Your task to perform on an android device: open a bookmark in the chrome app Image 0: 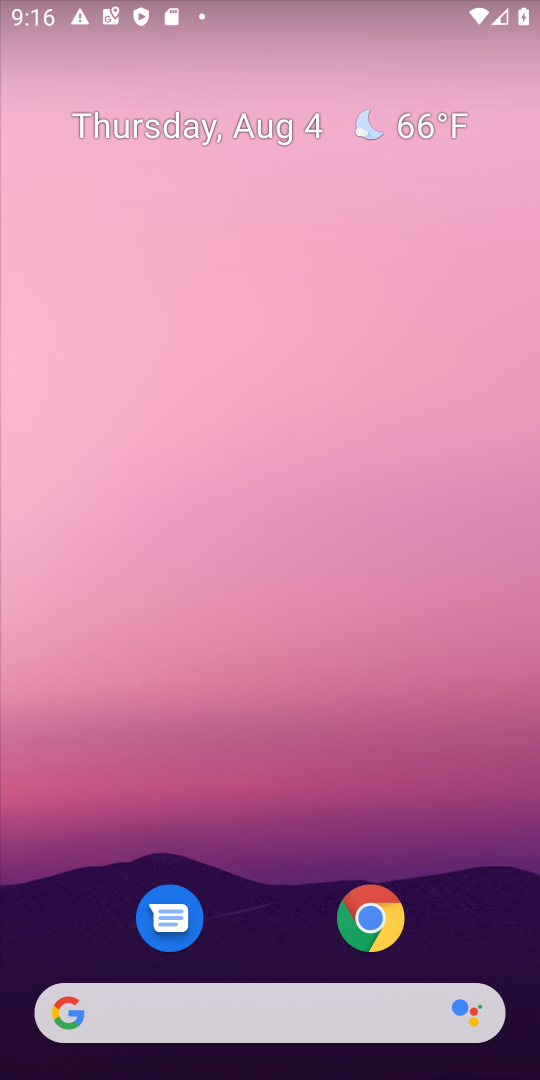
Step 0: press home button
Your task to perform on an android device: open a bookmark in the chrome app Image 1: 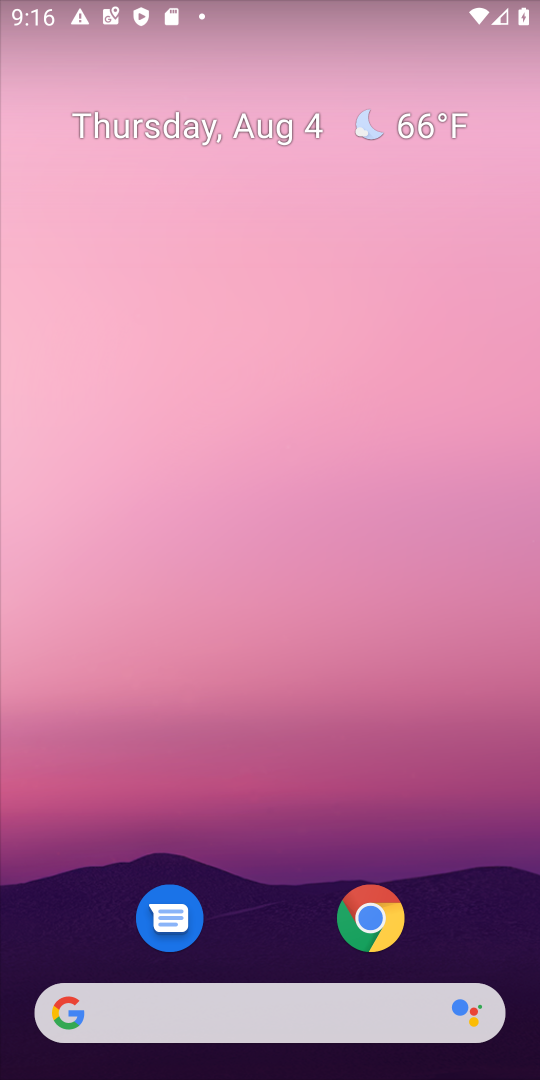
Step 1: drag from (286, 957) to (281, 97)
Your task to perform on an android device: open a bookmark in the chrome app Image 2: 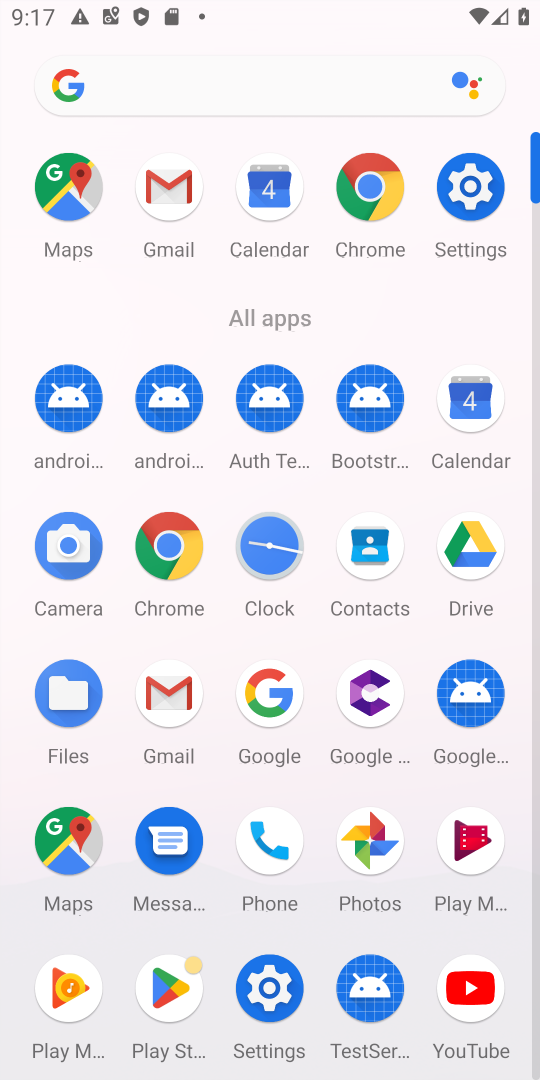
Step 2: click (362, 181)
Your task to perform on an android device: open a bookmark in the chrome app Image 3: 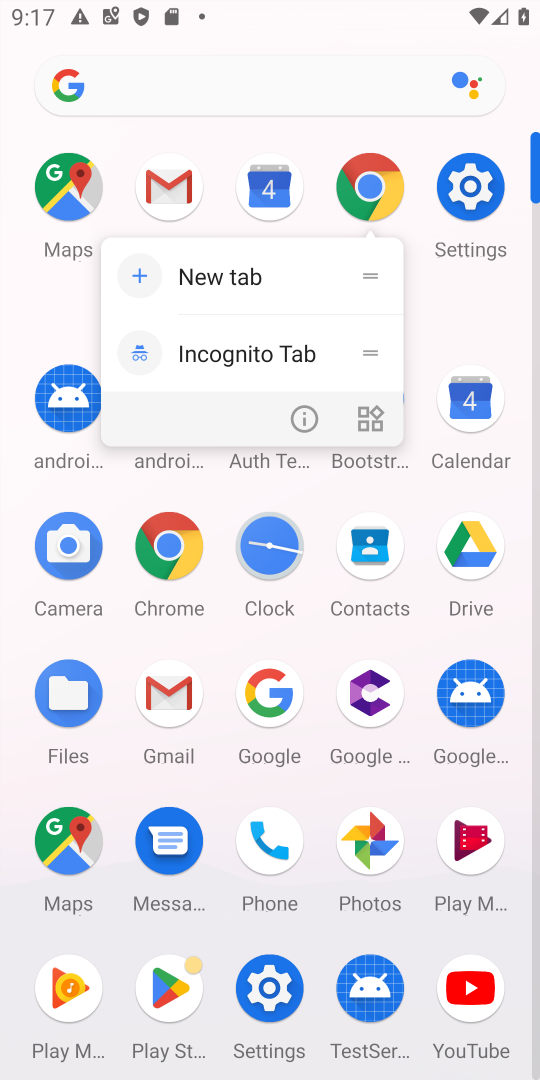
Step 3: click (367, 181)
Your task to perform on an android device: open a bookmark in the chrome app Image 4: 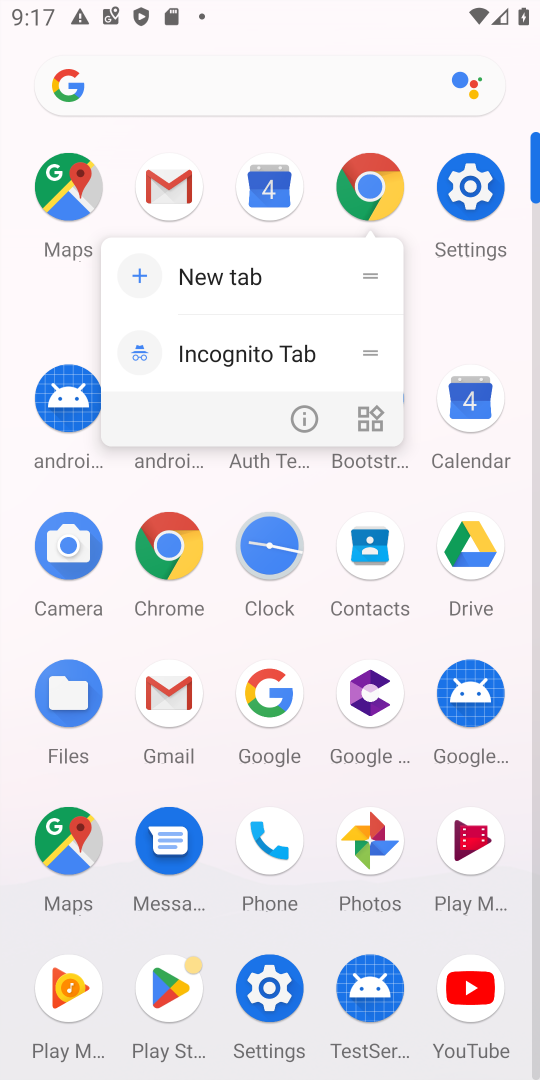
Step 4: click (367, 181)
Your task to perform on an android device: open a bookmark in the chrome app Image 5: 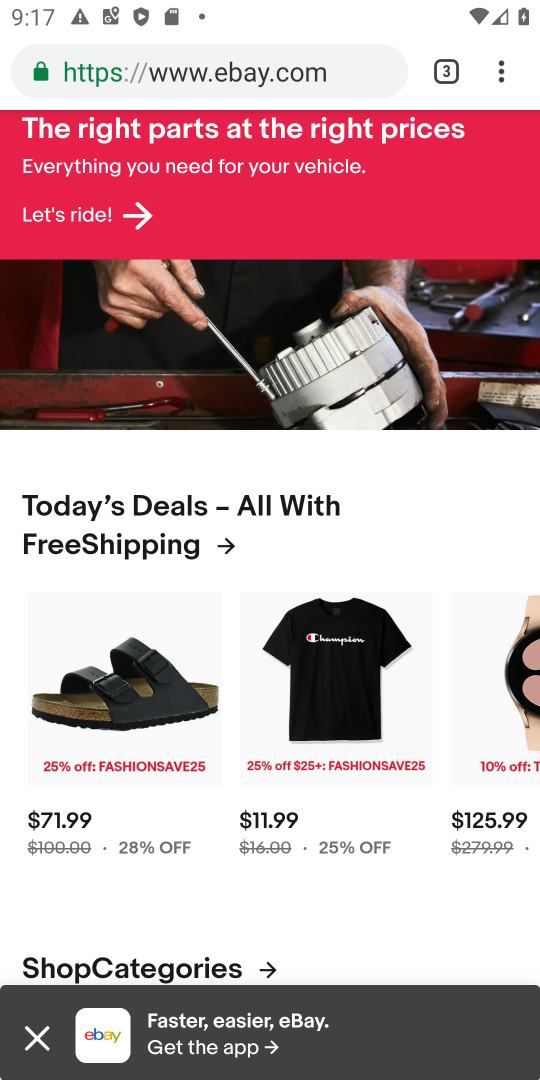
Step 5: click (508, 64)
Your task to perform on an android device: open a bookmark in the chrome app Image 6: 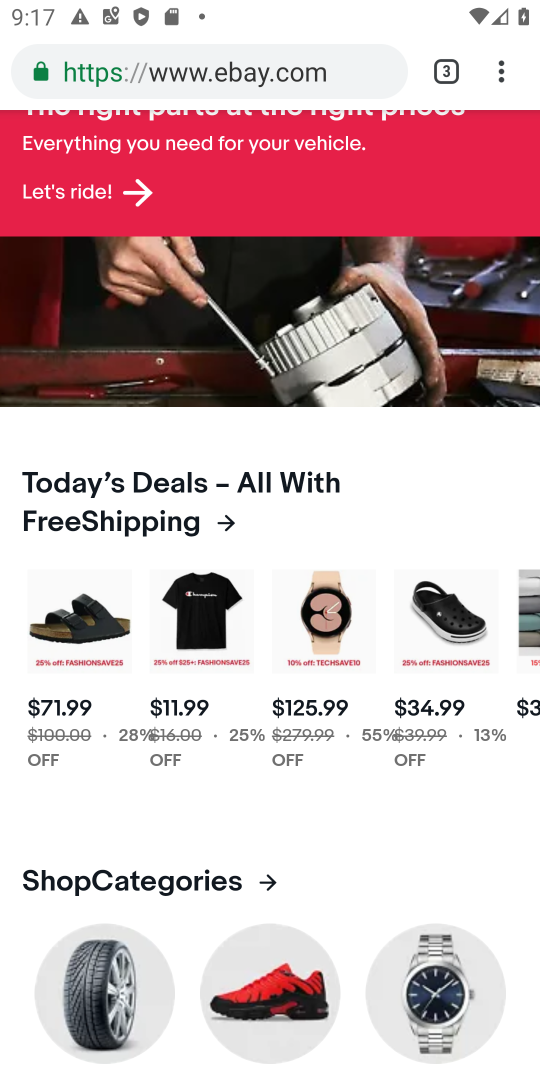
Step 6: click (501, 68)
Your task to perform on an android device: open a bookmark in the chrome app Image 7: 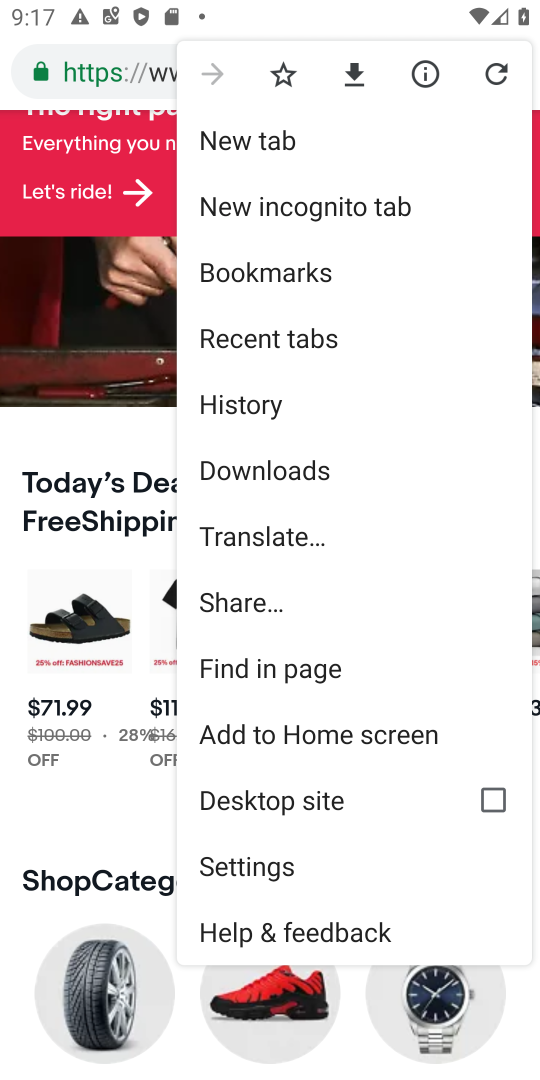
Step 7: click (328, 271)
Your task to perform on an android device: open a bookmark in the chrome app Image 8: 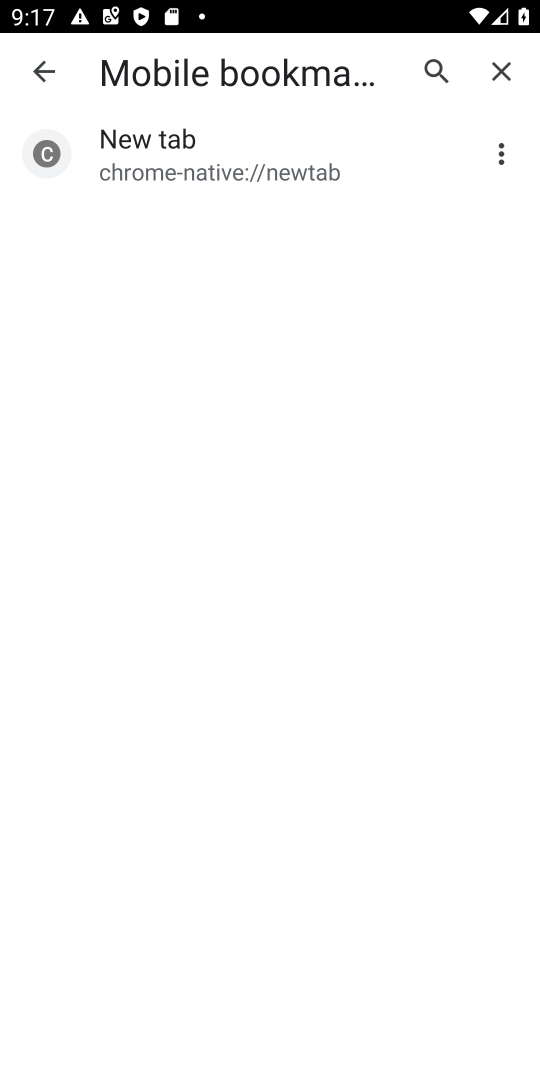
Step 8: click (328, 271)
Your task to perform on an android device: open a bookmark in the chrome app Image 9: 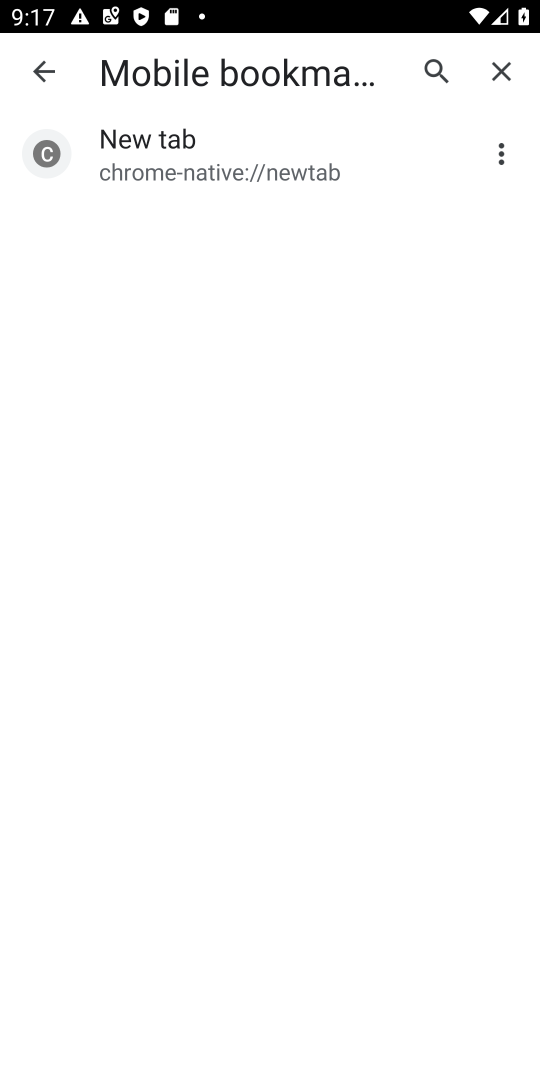
Step 9: click (250, 165)
Your task to perform on an android device: open a bookmark in the chrome app Image 10: 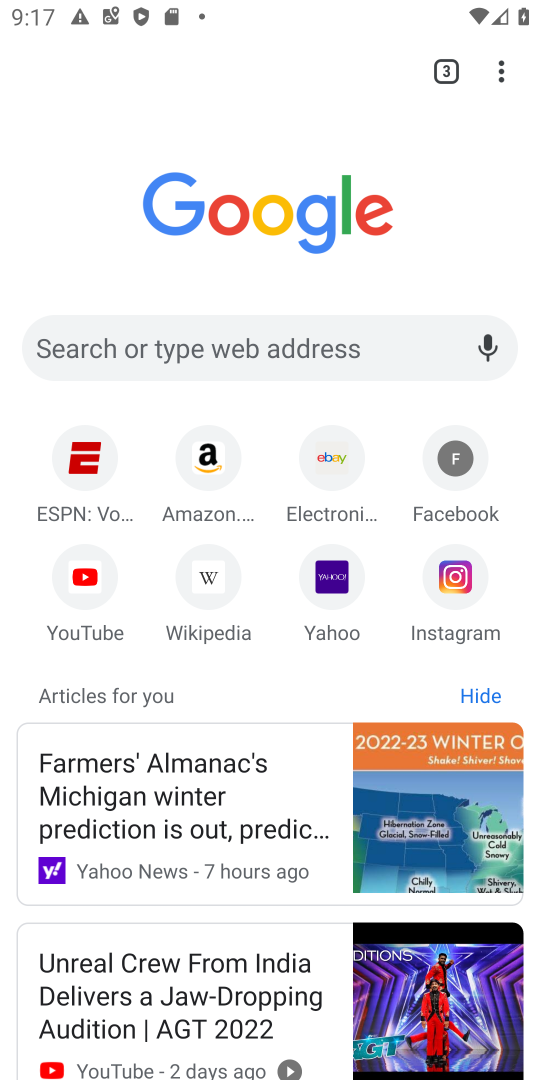
Step 10: task complete